Your task to perform on an android device: check storage Image 0: 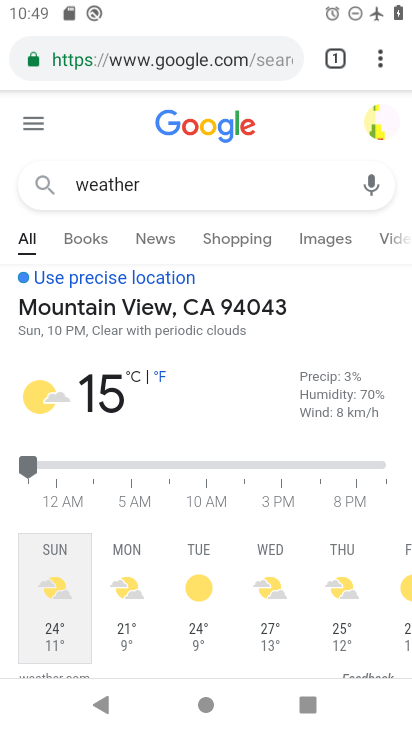
Step 0: press home button
Your task to perform on an android device: check storage Image 1: 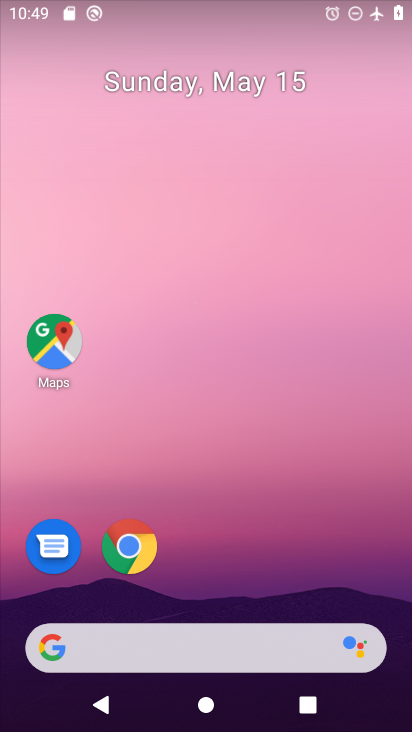
Step 1: drag from (292, 544) to (367, 122)
Your task to perform on an android device: check storage Image 2: 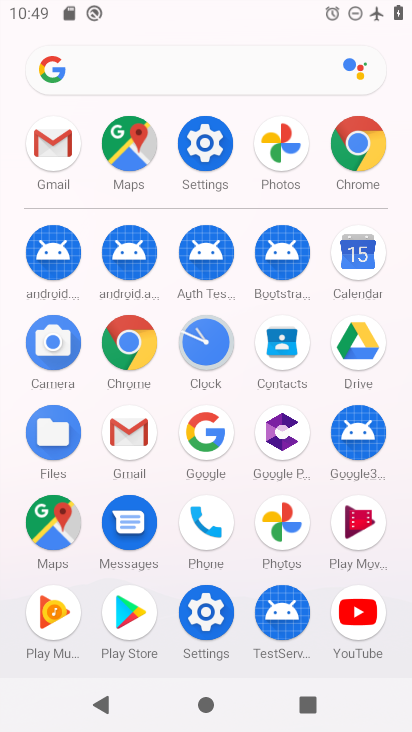
Step 2: click (213, 152)
Your task to perform on an android device: check storage Image 3: 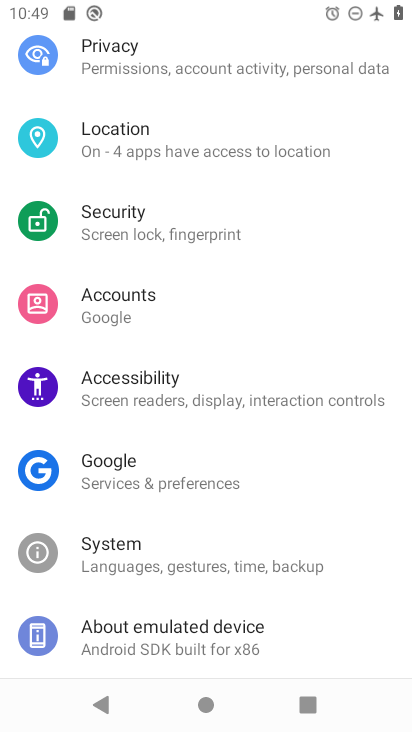
Step 3: drag from (239, 237) to (253, 620)
Your task to perform on an android device: check storage Image 4: 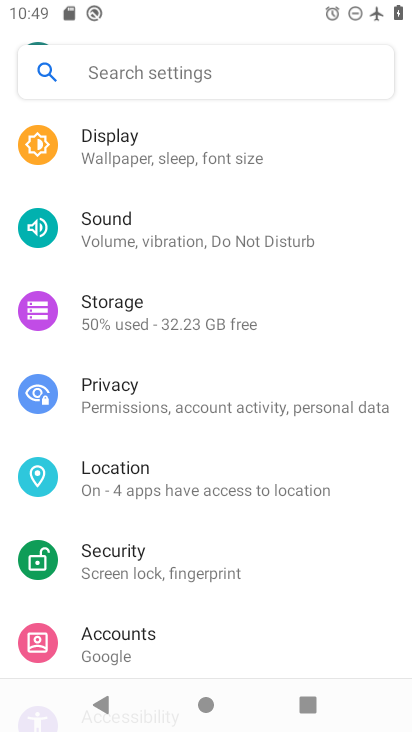
Step 4: click (156, 315)
Your task to perform on an android device: check storage Image 5: 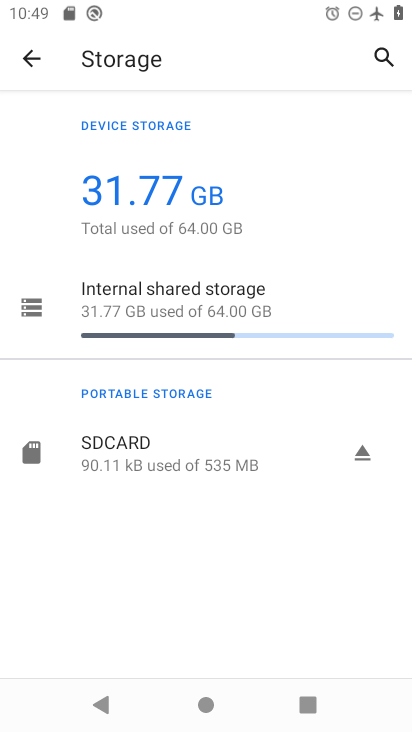
Step 5: task complete